Your task to perform on an android device: When is my next meeting? Image 0: 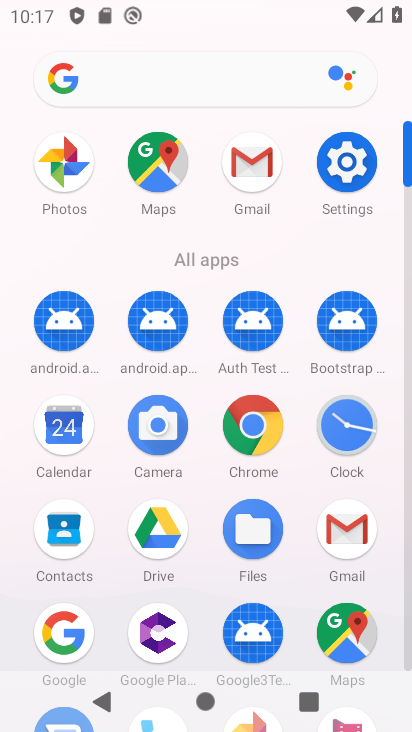
Step 0: click (64, 426)
Your task to perform on an android device: When is my next meeting? Image 1: 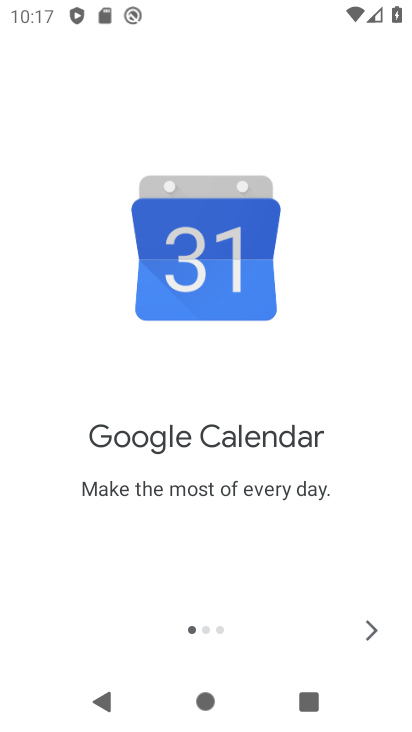
Step 1: click (365, 625)
Your task to perform on an android device: When is my next meeting? Image 2: 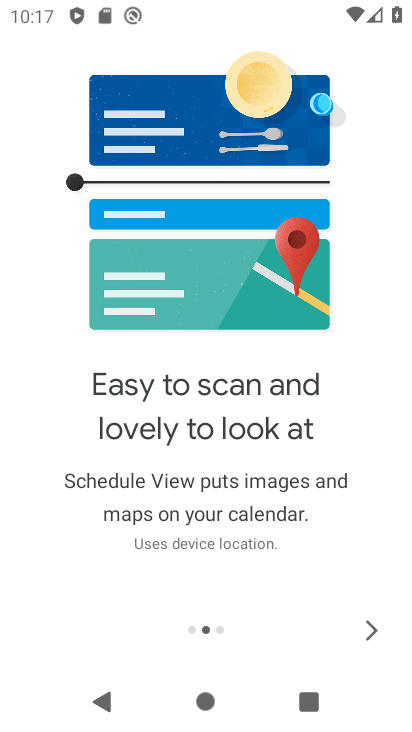
Step 2: click (365, 623)
Your task to perform on an android device: When is my next meeting? Image 3: 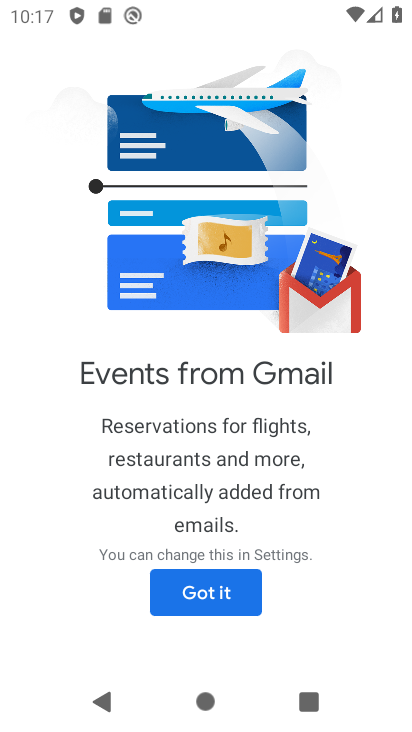
Step 3: click (239, 593)
Your task to perform on an android device: When is my next meeting? Image 4: 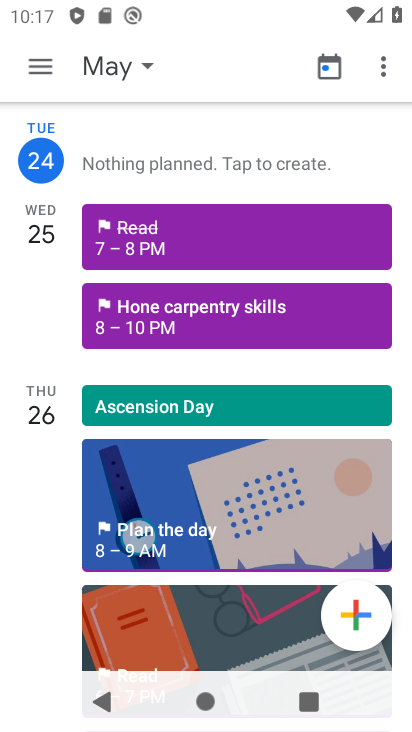
Step 4: task complete